Your task to perform on an android device: Go to sound settings Image 0: 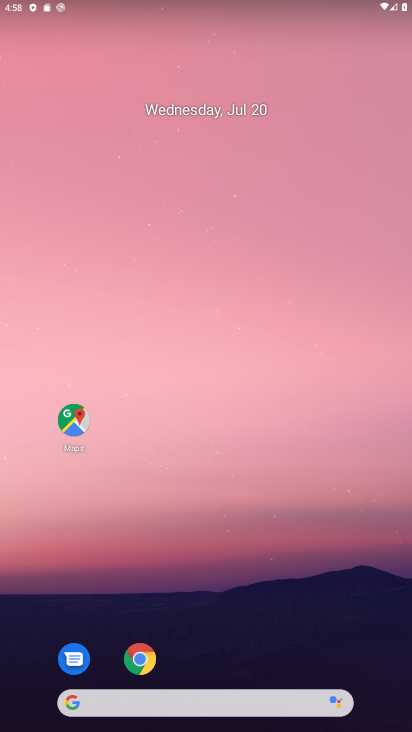
Step 0: drag from (199, 684) to (180, 154)
Your task to perform on an android device: Go to sound settings Image 1: 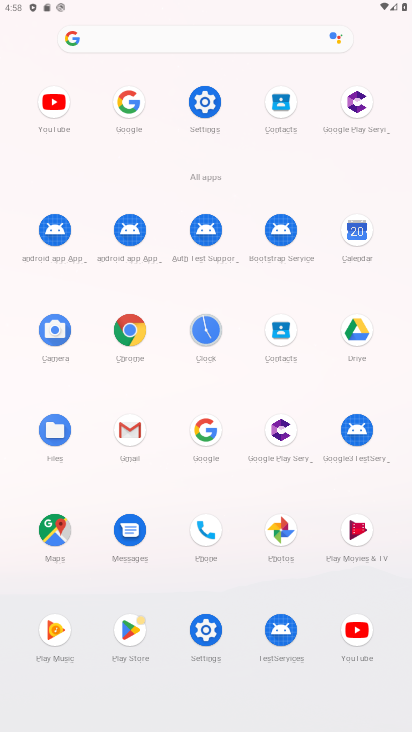
Step 1: click (206, 104)
Your task to perform on an android device: Go to sound settings Image 2: 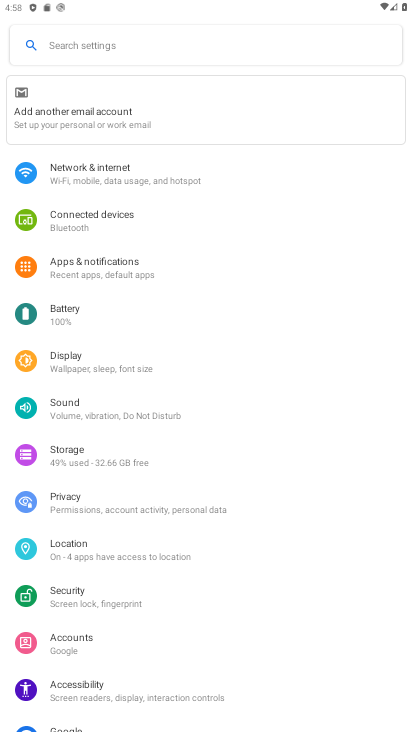
Step 2: click (82, 395)
Your task to perform on an android device: Go to sound settings Image 3: 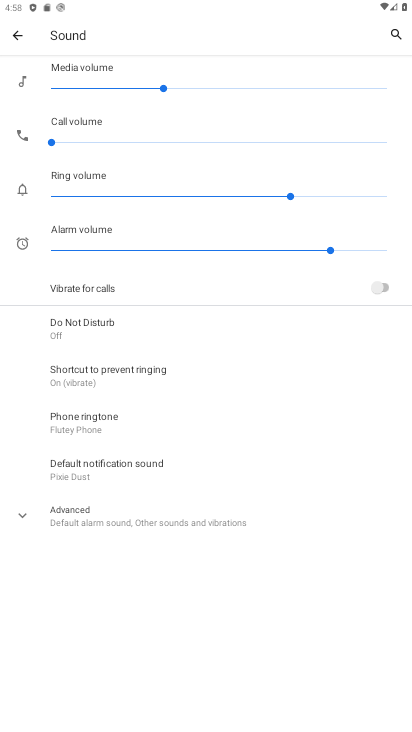
Step 3: click (90, 511)
Your task to perform on an android device: Go to sound settings Image 4: 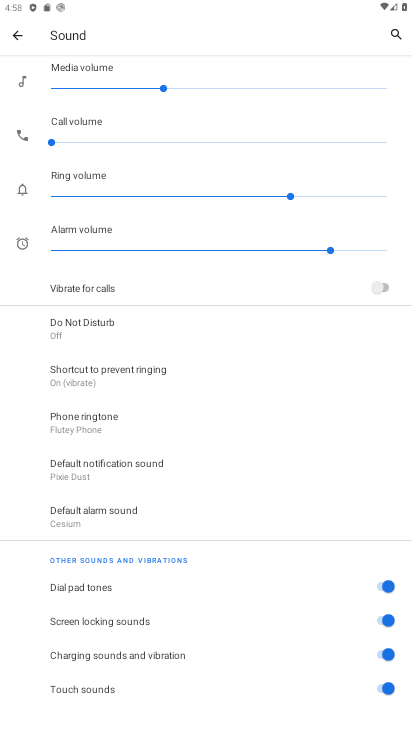
Step 4: task complete